Your task to perform on an android device: toggle show notifications on the lock screen Image 0: 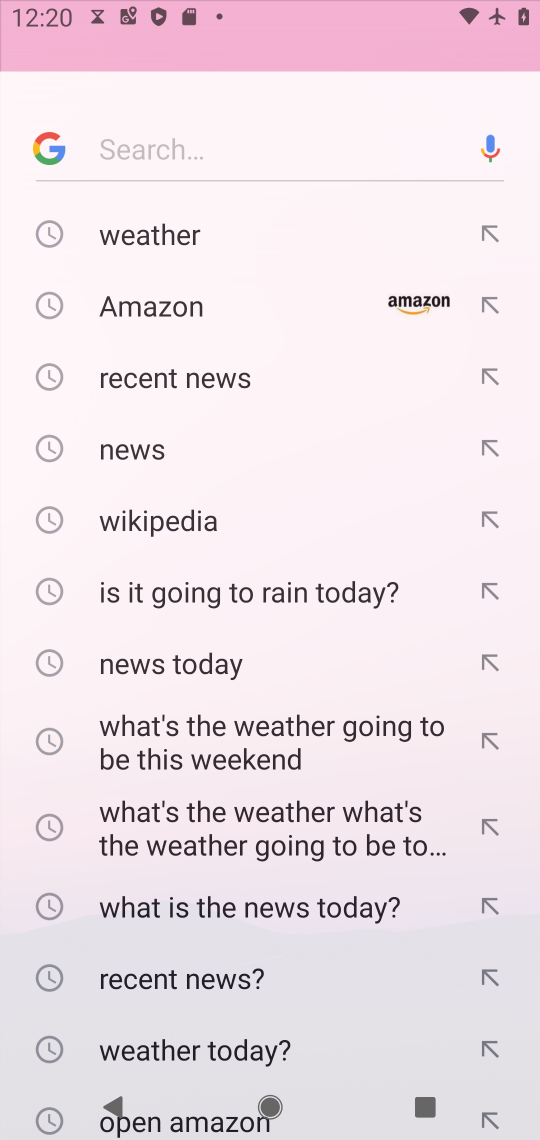
Step 0: press home button
Your task to perform on an android device: toggle show notifications on the lock screen Image 1: 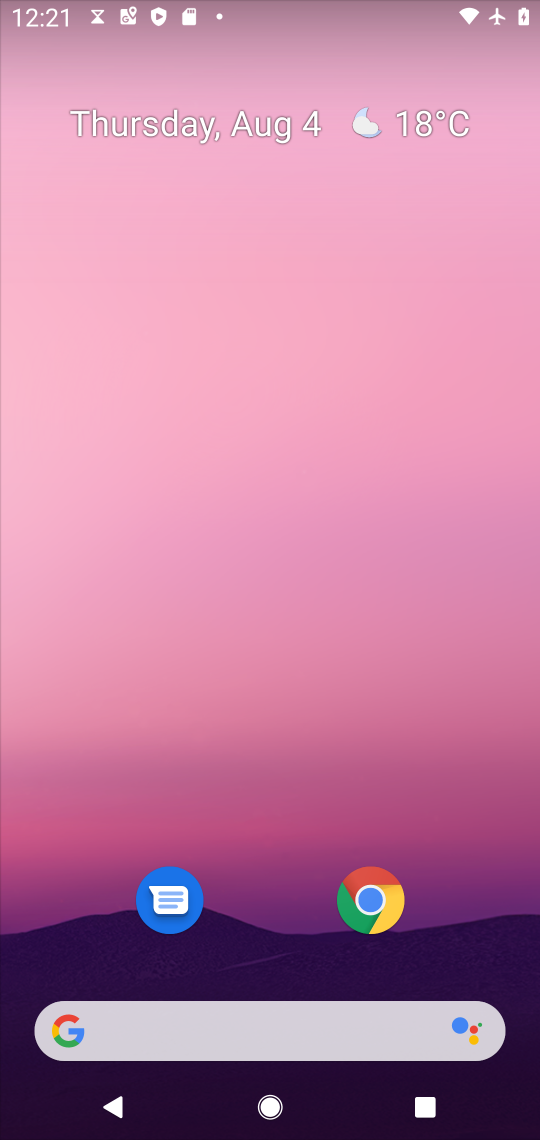
Step 1: drag from (277, 885) to (322, 96)
Your task to perform on an android device: toggle show notifications on the lock screen Image 2: 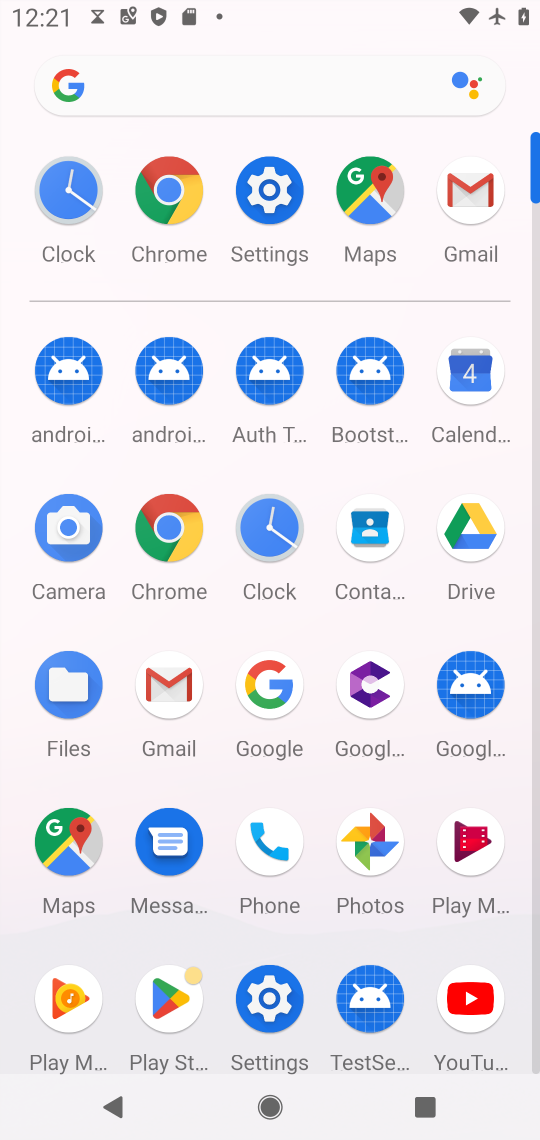
Step 2: click (276, 196)
Your task to perform on an android device: toggle show notifications on the lock screen Image 3: 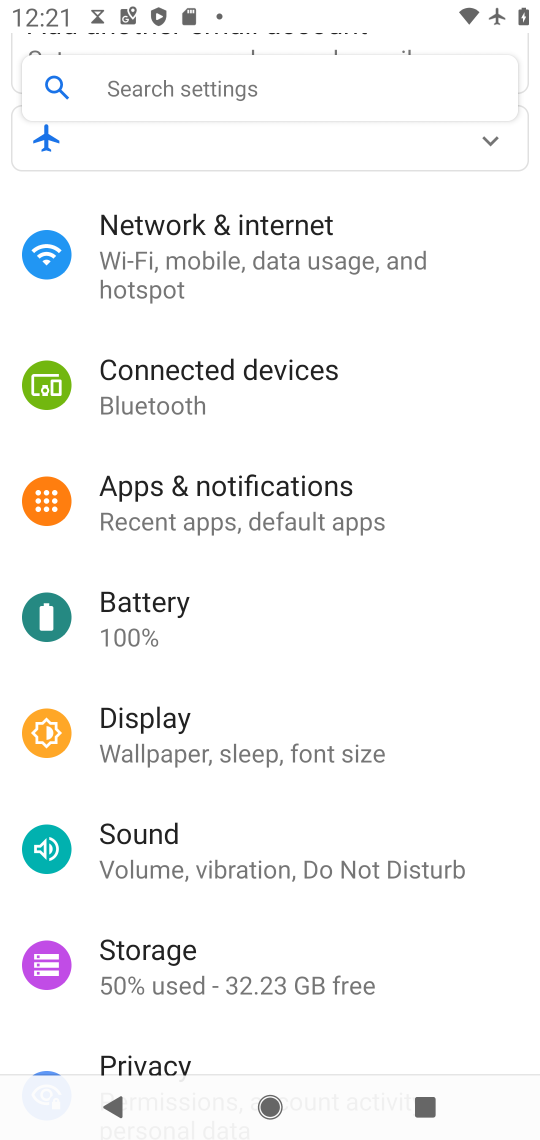
Step 3: click (233, 487)
Your task to perform on an android device: toggle show notifications on the lock screen Image 4: 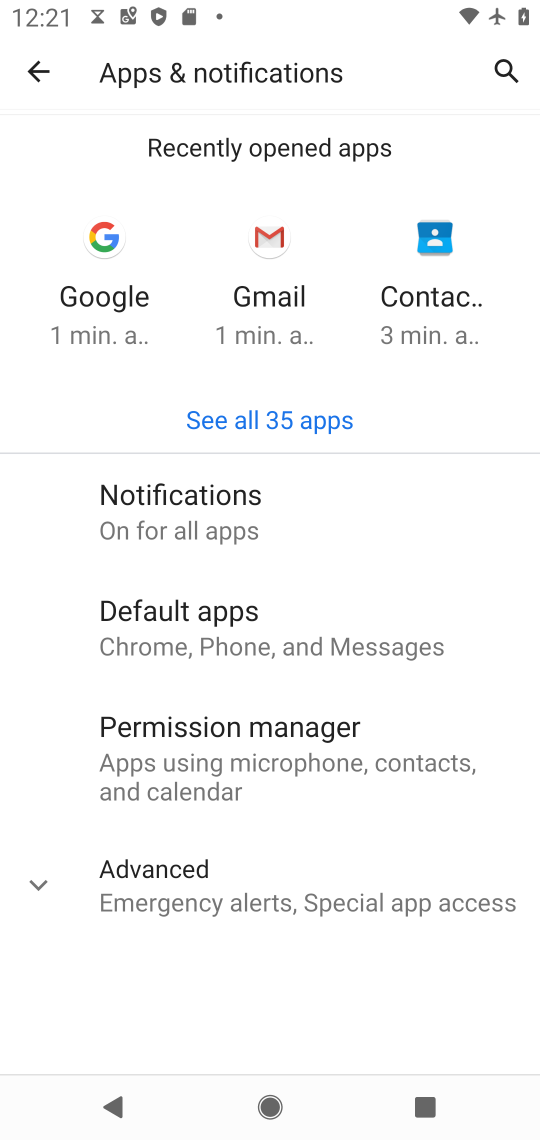
Step 4: click (183, 493)
Your task to perform on an android device: toggle show notifications on the lock screen Image 5: 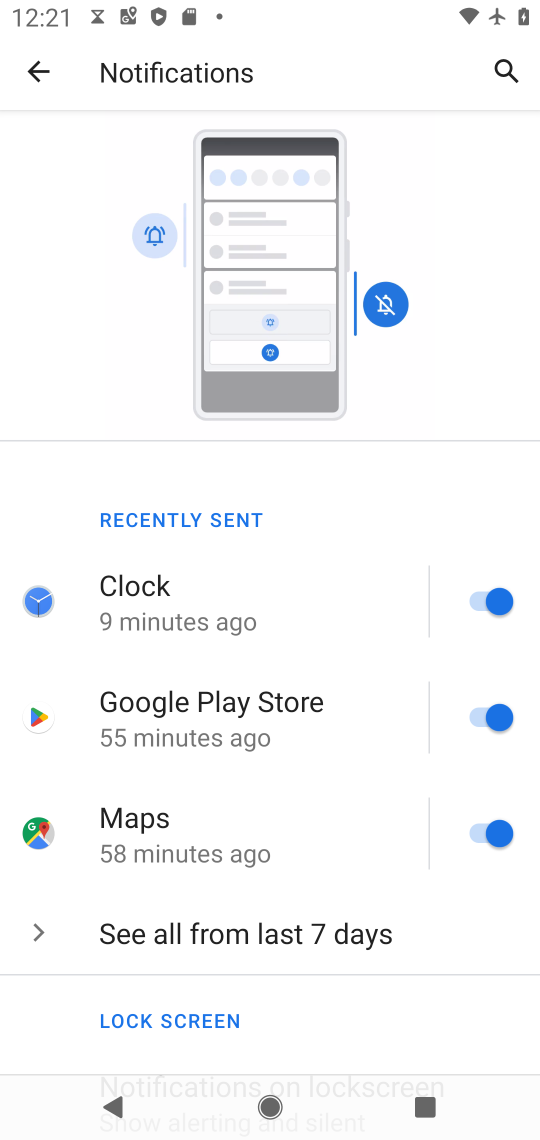
Step 5: drag from (411, 1024) to (340, 437)
Your task to perform on an android device: toggle show notifications on the lock screen Image 6: 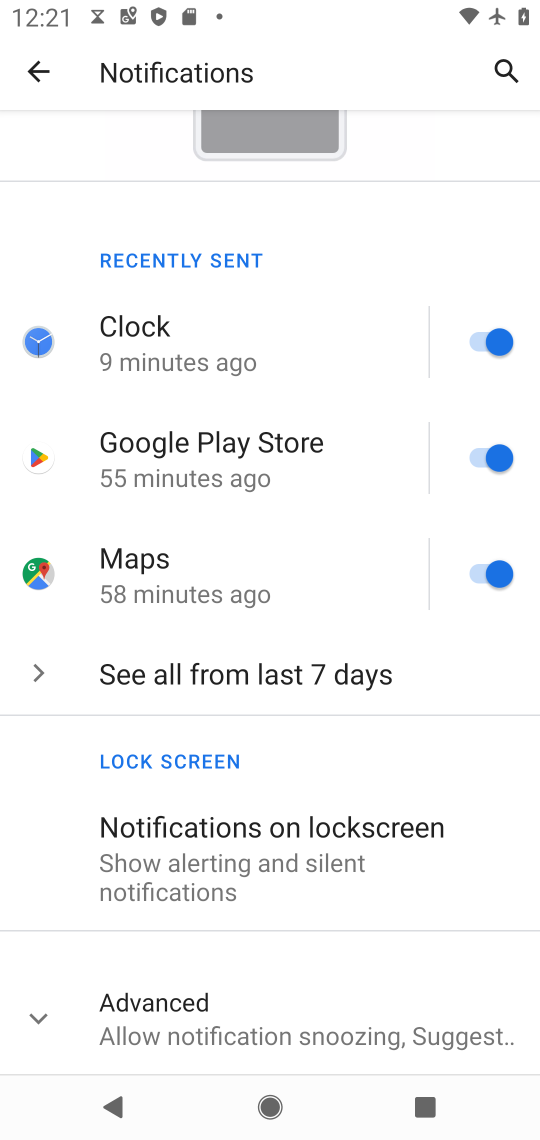
Step 6: click (278, 847)
Your task to perform on an android device: toggle show notifications on the lock screen Image 7: 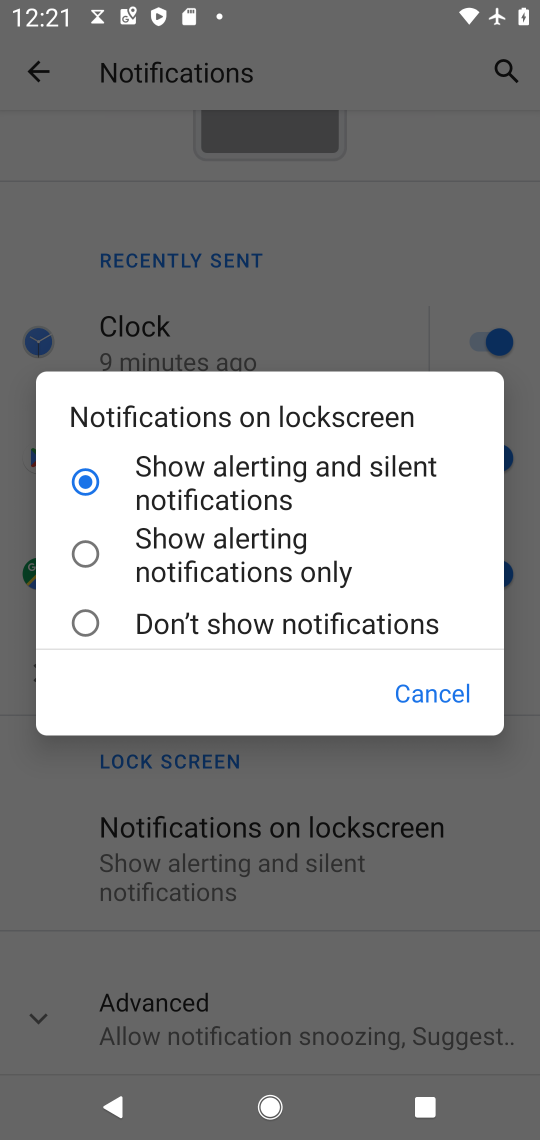
Step 7: task complete